Your task to perform on an android device: Go to accessibility settings Image 0: 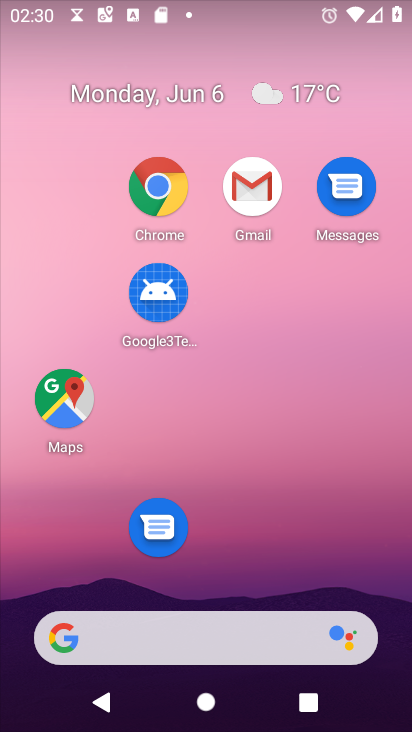
Step 0: click (294, 436)
Your task to perform on an android device: Go to accessibility settings Image 1: 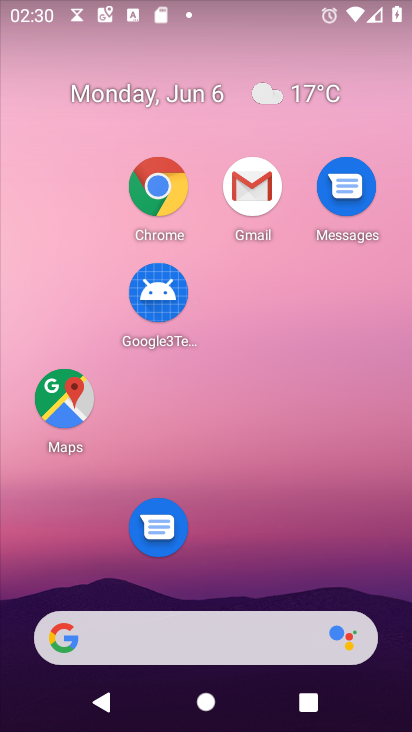
Step 1: drag from (322, 554) to (341, 9)
Your task to perform on an android device: Go to accessibility settings Image 2: 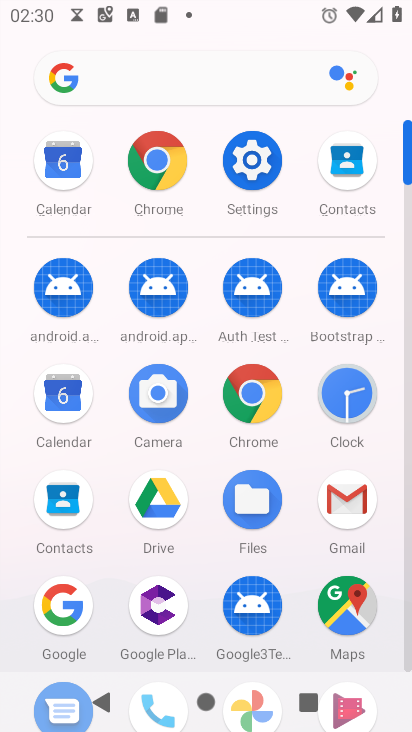
Step 2: click (237, 152)
Your task to perform on an android device: Go to accessibility settings Image 3: 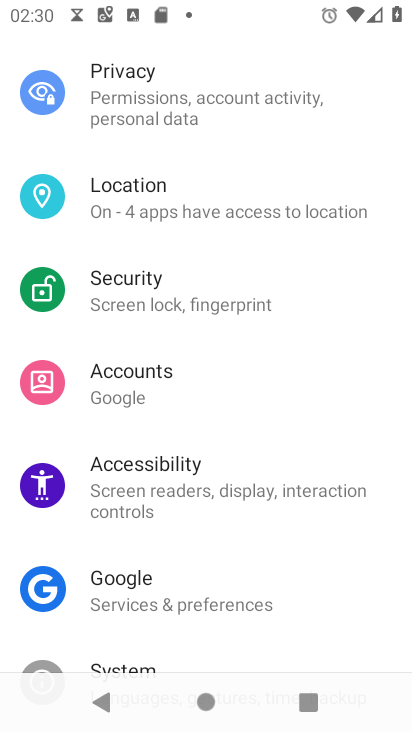
Step 3: click (164, 471)
Your task to perform on an android device: Go to accessibility settings Image 4: 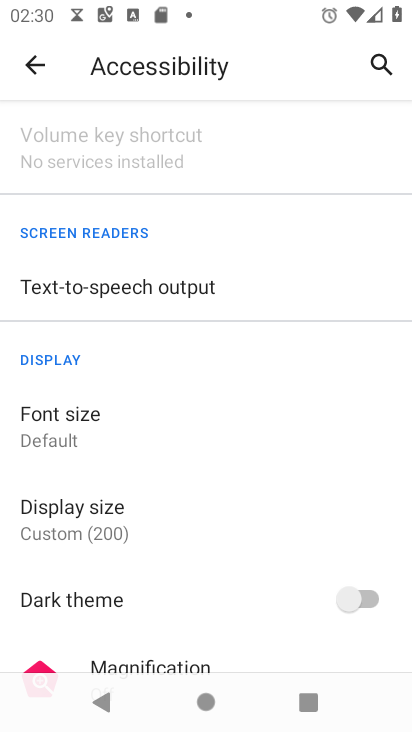
Step 4: task complete